Your task to perform on an android device: check google app version Image 0: 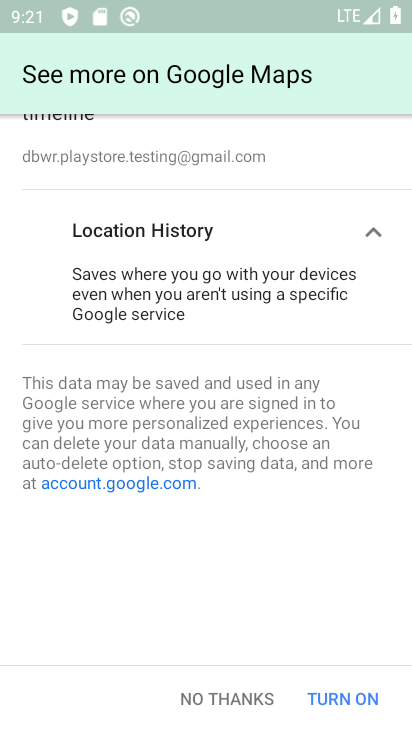
Step 0: press back button
Your task to perform on an android device: check google app version Image 1: 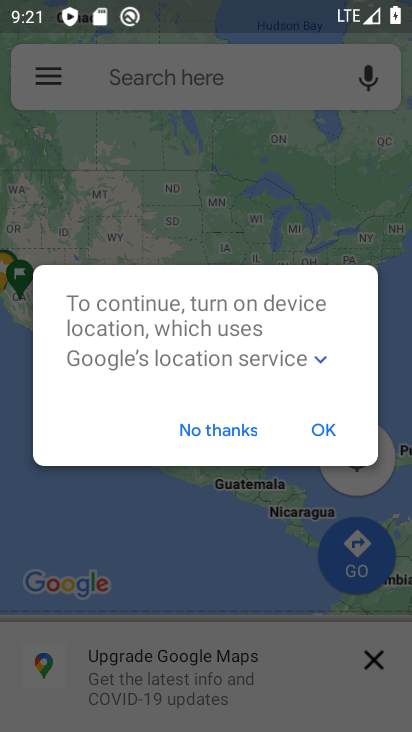
Step 1: click (248, 439)
Your task to perform on an android device: check google app version Image 2: 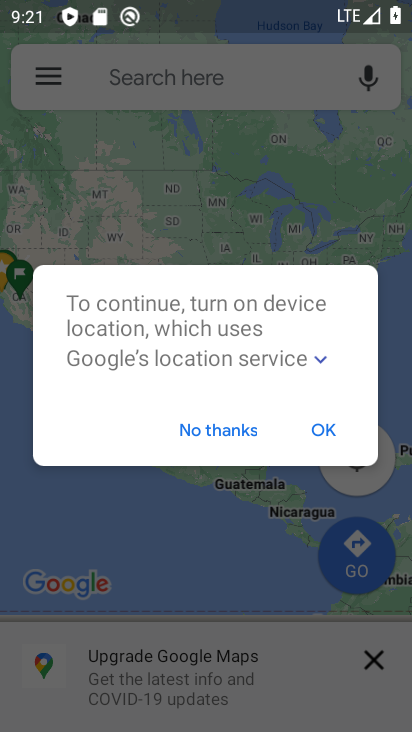
Step 2: click (239, 429)
Your task to perform on an android device: check google app version Image 3: 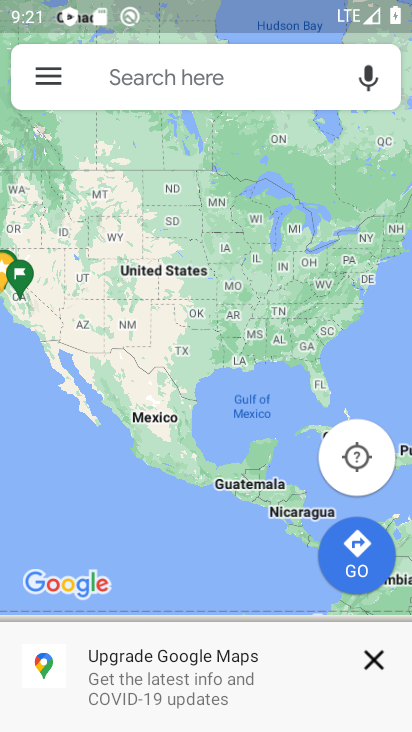
Step 3: press back button
Your task to perform on an android device: check google app version Image 4: 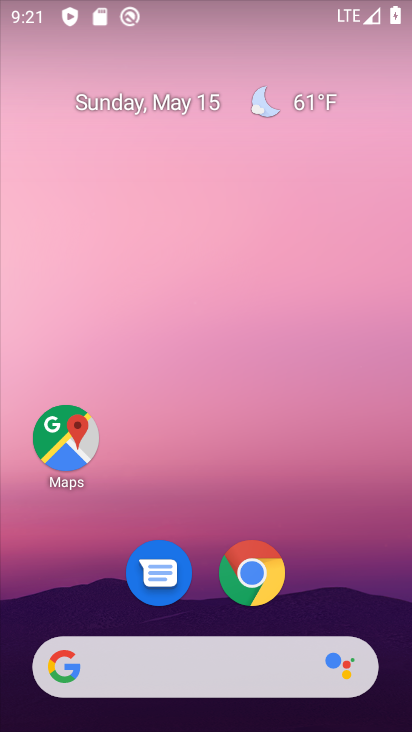
Step 4: drag from (59, 551) to (187, 219)
Your task to perform on an android device: check google app version Image 5: 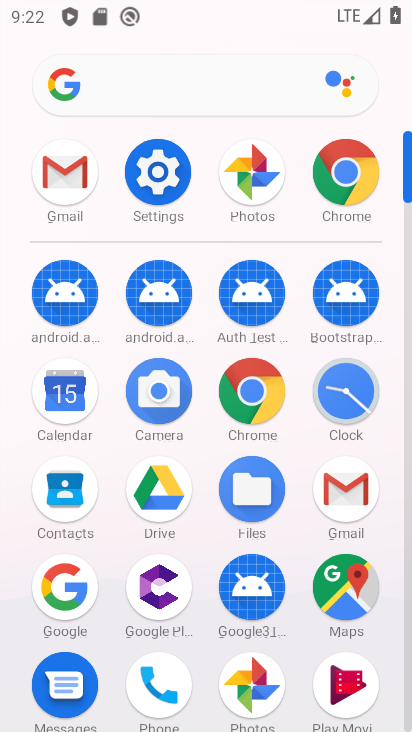
Step 5: click (255, 601)
Your task to perform on an android device: check google app version Image 6: 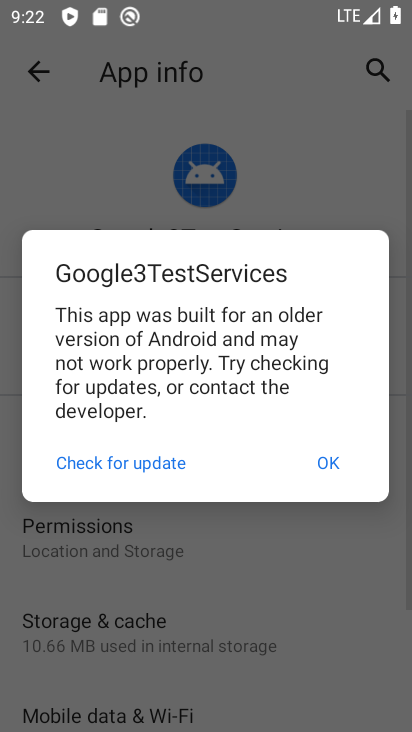
Step 6: click (335, 455)
Your task to perform on an android device: check google app version Image 7: 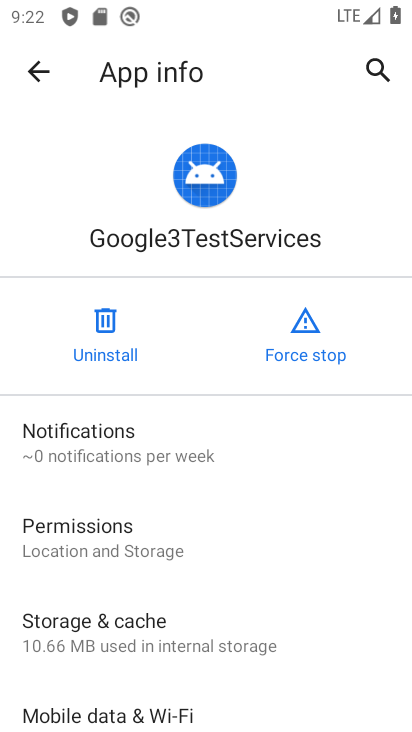
Step 7: drag from (91, 664) to (239, 294)
Your task to perform on an android device: check google app version Image 8: 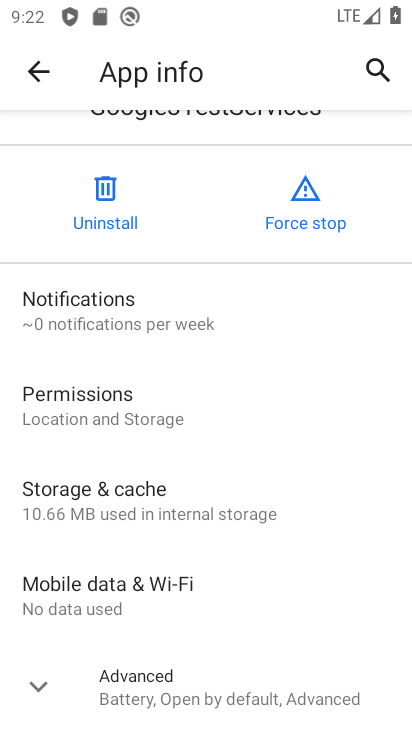
Step 8: drag from (91, 642) to (192, 425)
Your task to perform on an android device: check google app version Image 9: 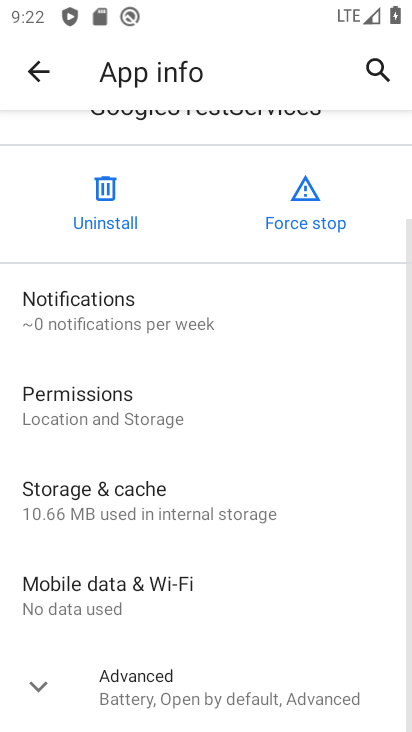
Step 9: click (107, 702)
Your task to perform on an android device: check google app version Image 10: 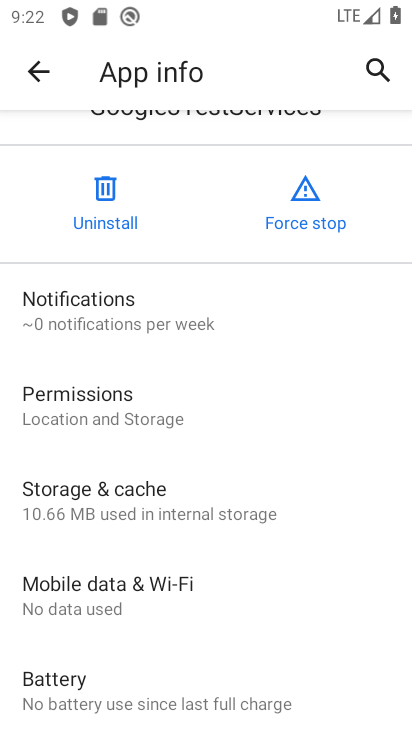
Step 10: drag from (72, 717) to (212, 285)
Your task to perform on an android device: check google app version Image 11: 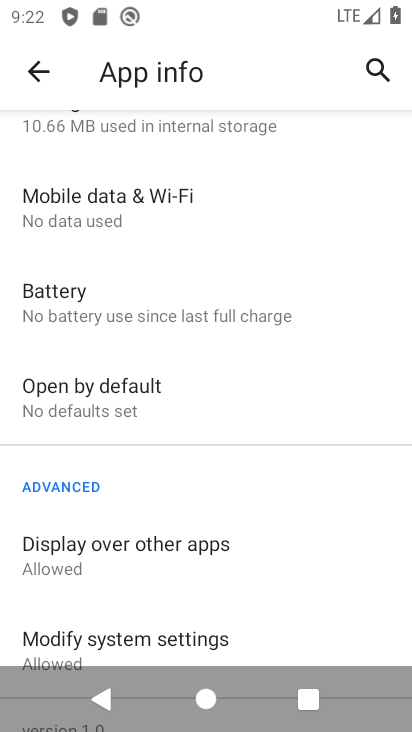
Step 11: drag from (40, 625) to (240, 236)
Your task to perform on an android device: check google app version Image 12: 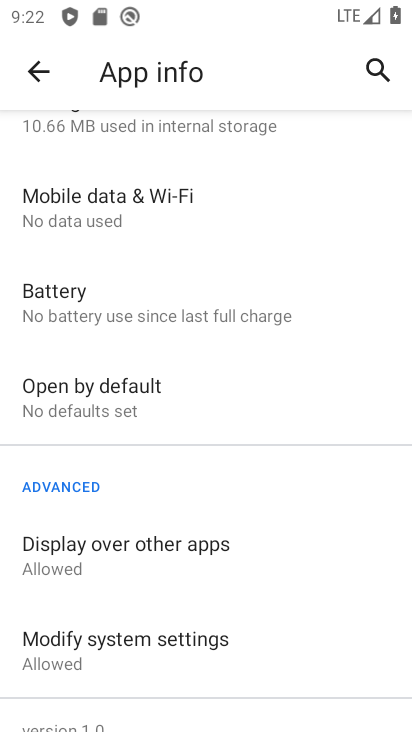
Step 12: drag from (58, 666) to (291, 245)
Your task to perform on an android device: check google app version Image 13: 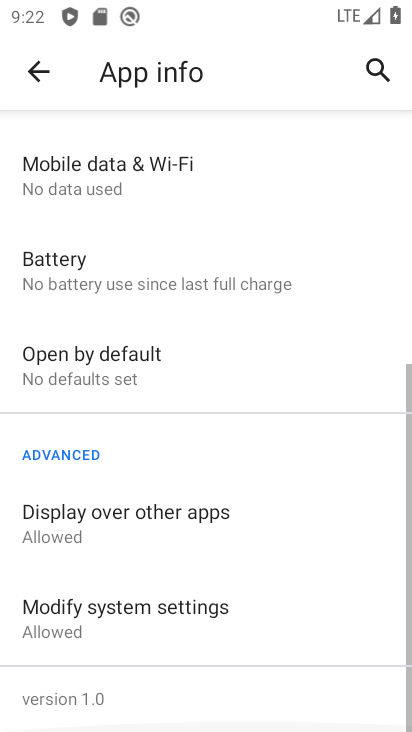
Step 13: click (91, 701)
Your task to perform on an android device: check google app version Image 14: 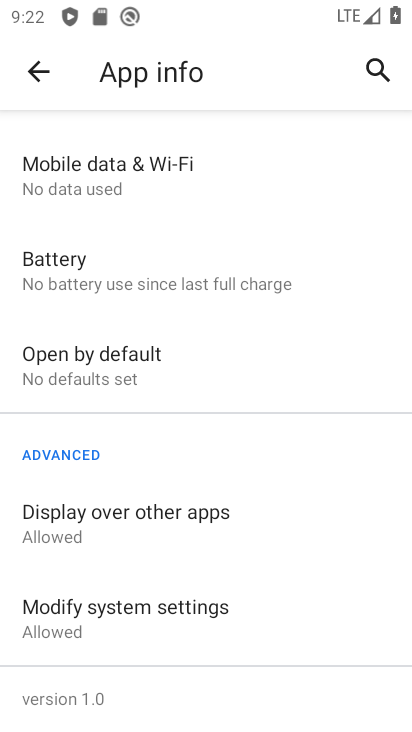
Step 14: task complete